Your task to perform on an android device: Open Chrome and go to the settings page Image 0: 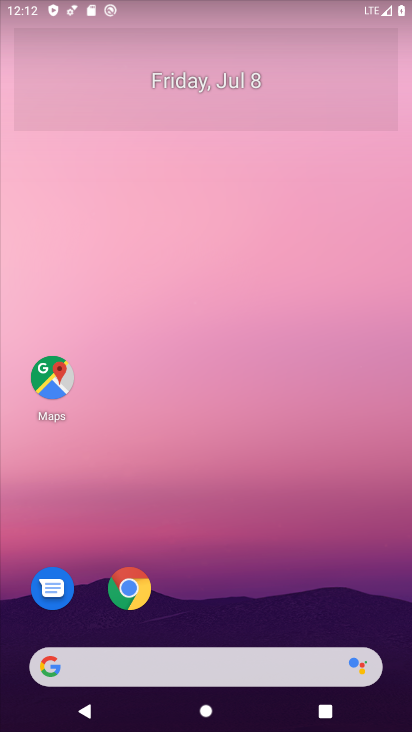
Step 0: press home button
Your task to perform on an android device: Open Chrome and go to the settings page Image 1: 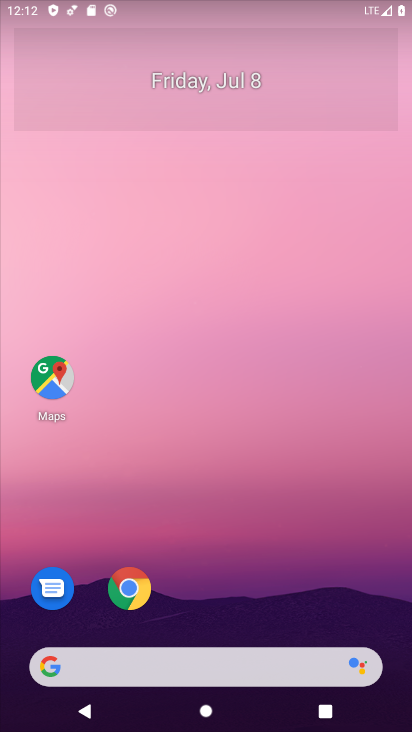
Step 1: drag from (216, 627) to (240, 40)
Your task to perform on an android device: Open Chrome and go to the settings page Image 2: 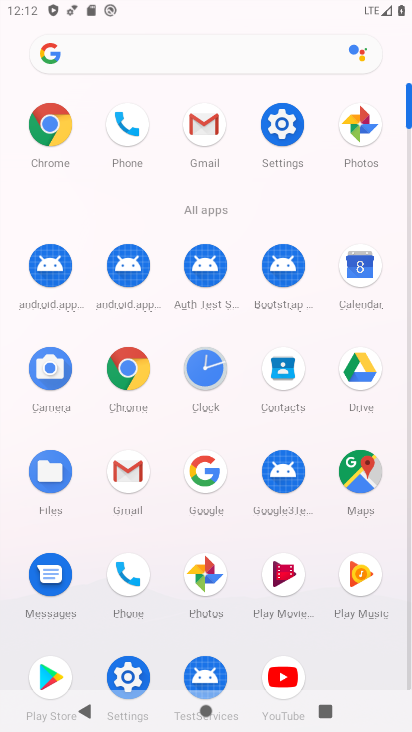
Step 2: click (44, 123)
Your task to perform on an android device: Open Chrome and go to the settings page Image 3: 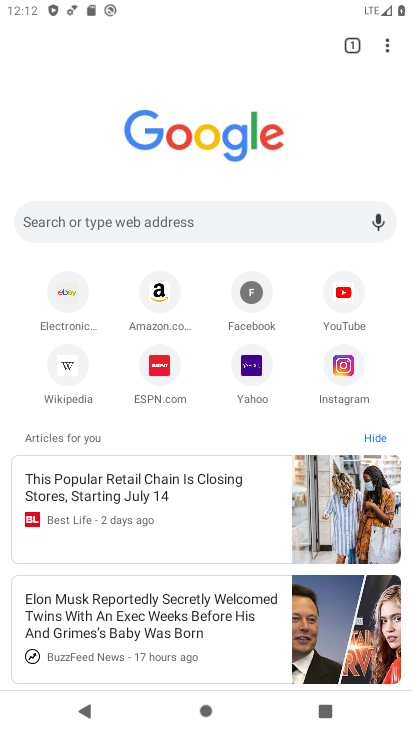
Step 3: click (388, 43)
Your task to perform on an android device: Open Chrome and go to the settings page Image 4: 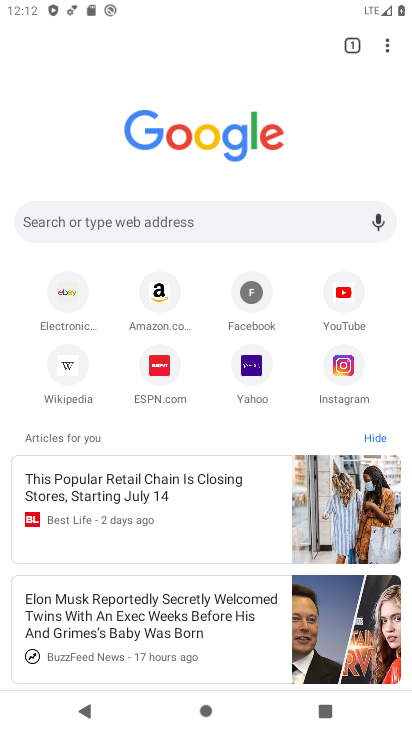
Step 4: click (389, 50)
Your task to perform on an android device: Open Chrome and go to the settings page Image 5: 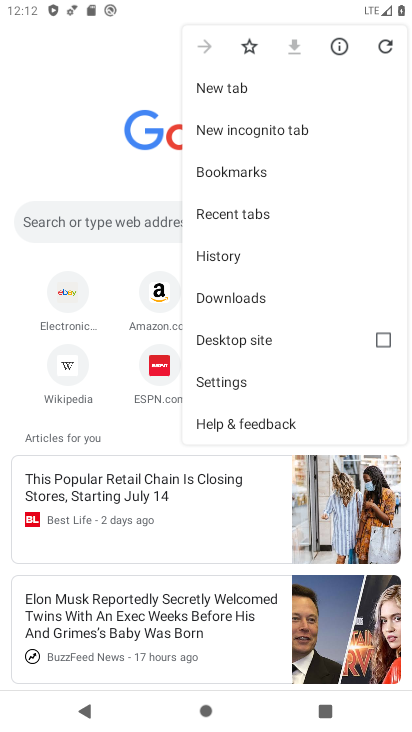
Step 5: click (251, 383)
Your task to perform on an android device: Open Chrome and go to the settings page Image 6: 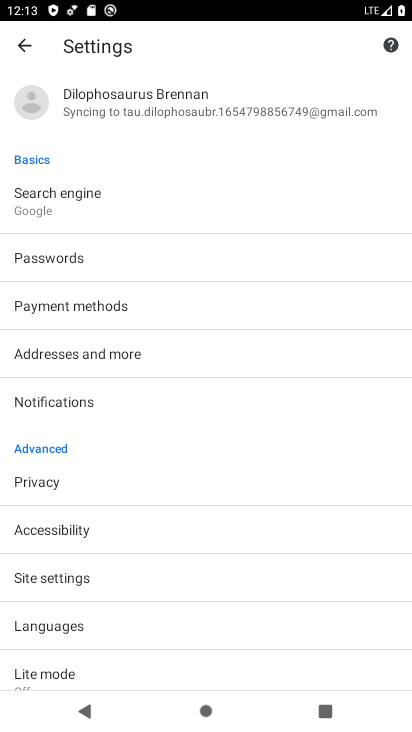
Step 6: task complete